Your task to perform on an android device: Go to wifi settings Image 0: 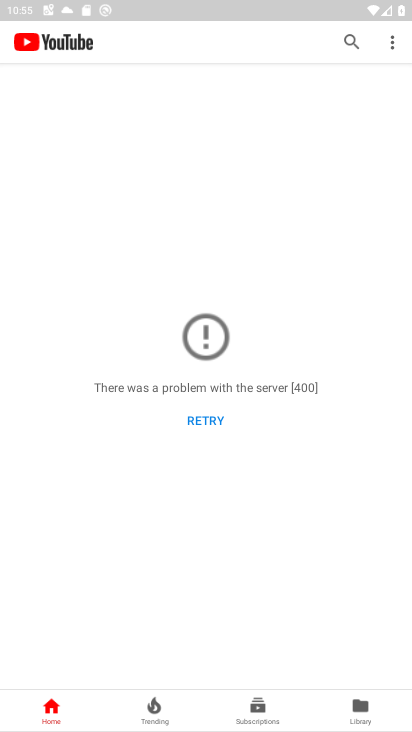
Step 0: press home button
Your task to perform on an android device: Go to wifi settings Image 1: 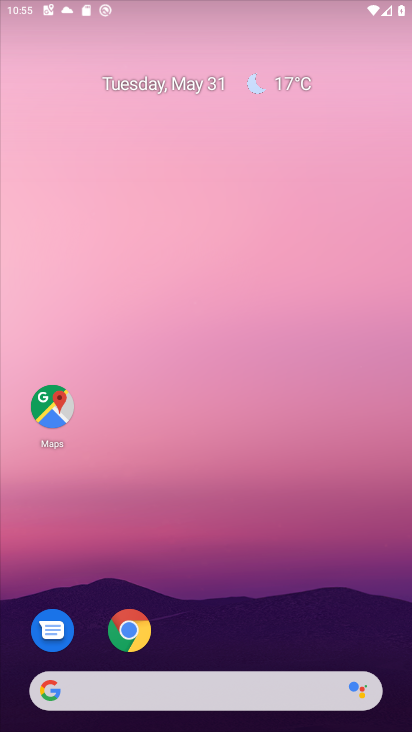
Step 1: drag from (253, 455) to (181, 0)
Your task to perform on an android device: Go to wifi settings Image 2: 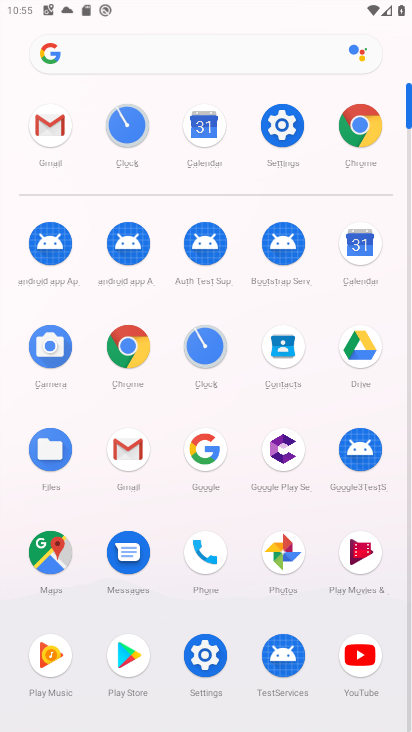
Step 2: click (284, 138)
Your task to perform on an android device: Go to wifi settings Image 3: 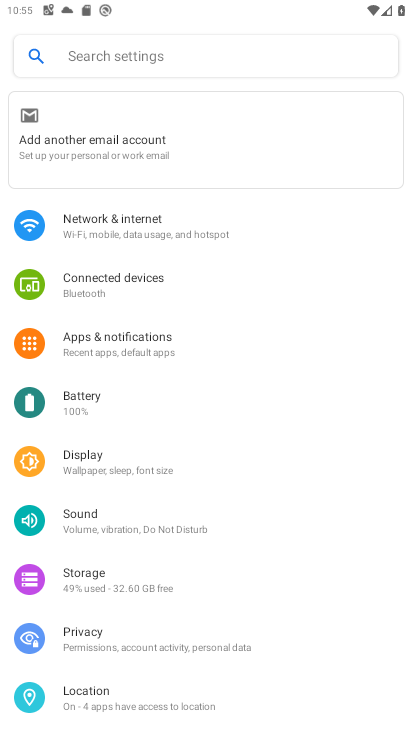
Step 3: click (107, 235)
Your task to perform on an android device: Go to wifi settings Image 4: 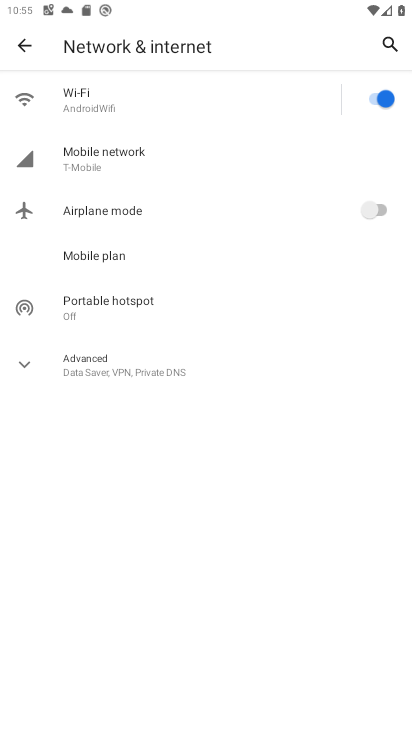
Step 4: click (203, 113)
Your task to perform on an android device: Go to wifi settings Image 5: 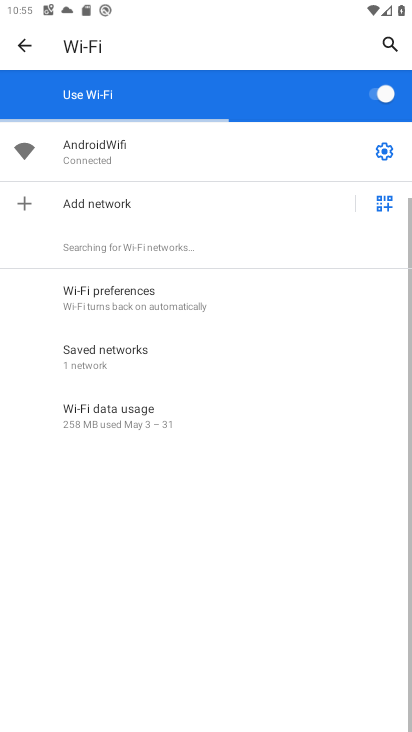
Step 5: click (392, 142)
Your task to perform on an android device: Go to wifi settings Image 6: 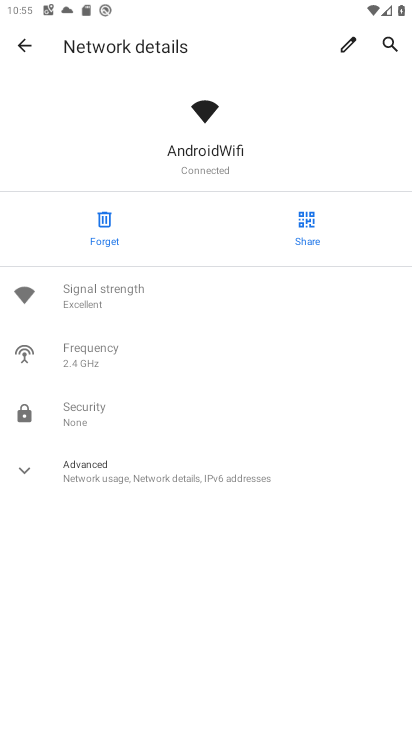
Step 6: task complete